Your task to perform on an android device: toggle data saver in the chrome app Image 0: 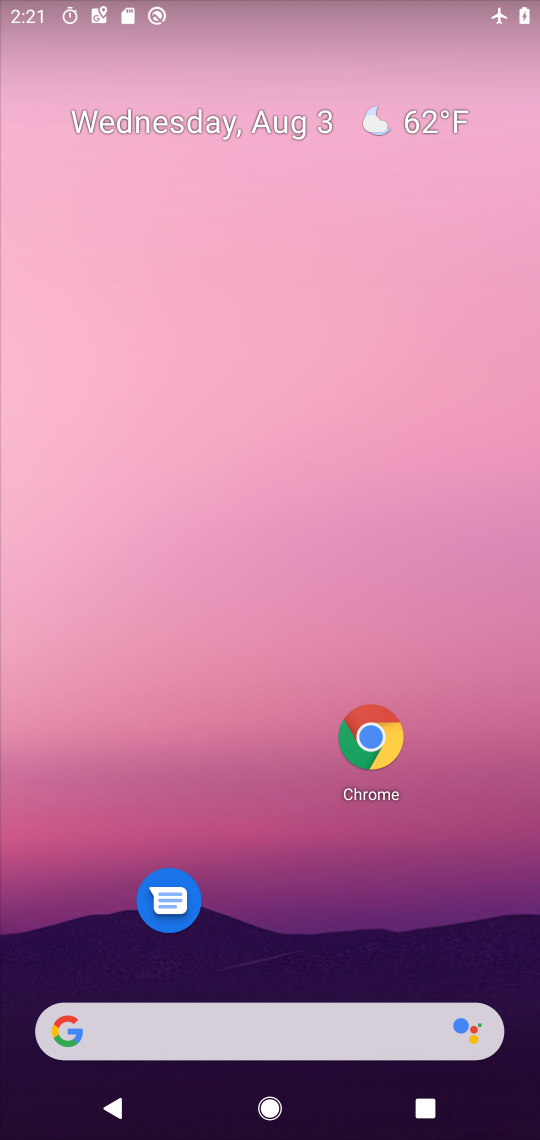
Step 0: press home button
Your task to perform on an android device: toggle data saver in the chrome app Image 1: 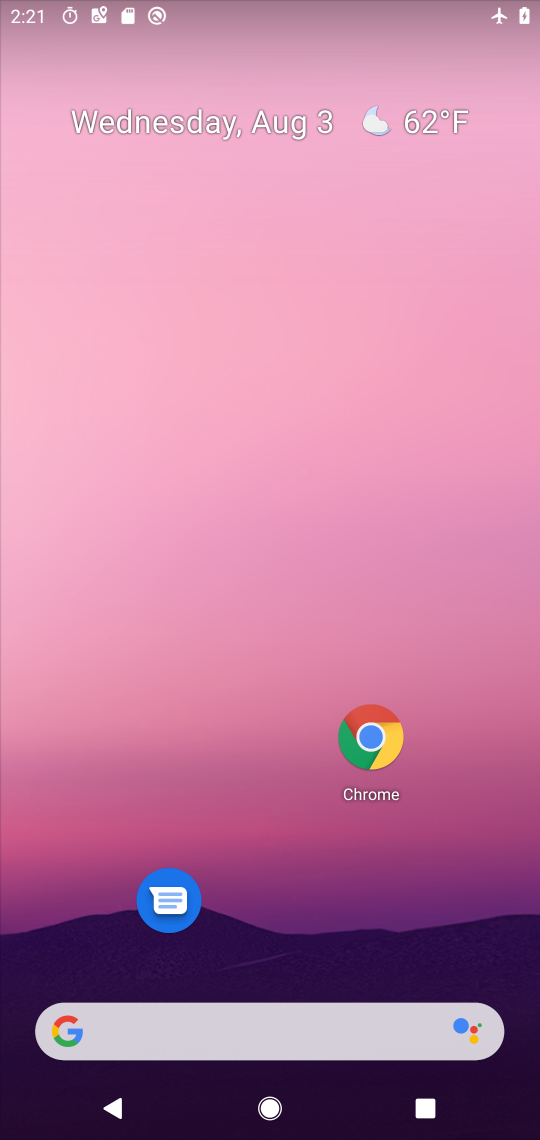
Step 1: drag from (267, 855) to (371, 14)
Your task to perform on an android device: toggle data saver in the chrome app Image 2: 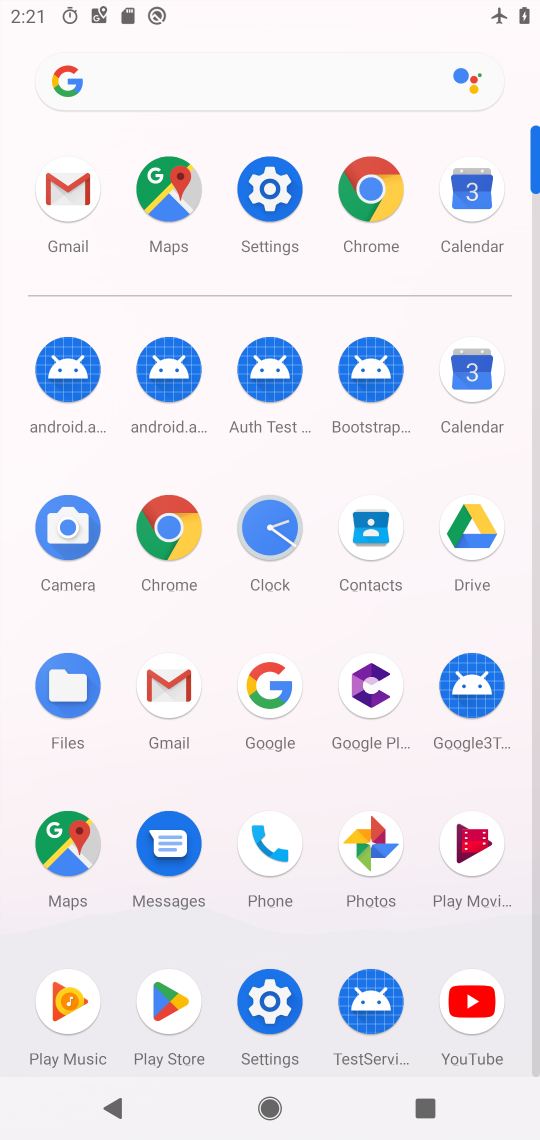
Step 2: click (169, 538)
Your task to perform on an android device: toggle data saver in the chrome app Image 3: 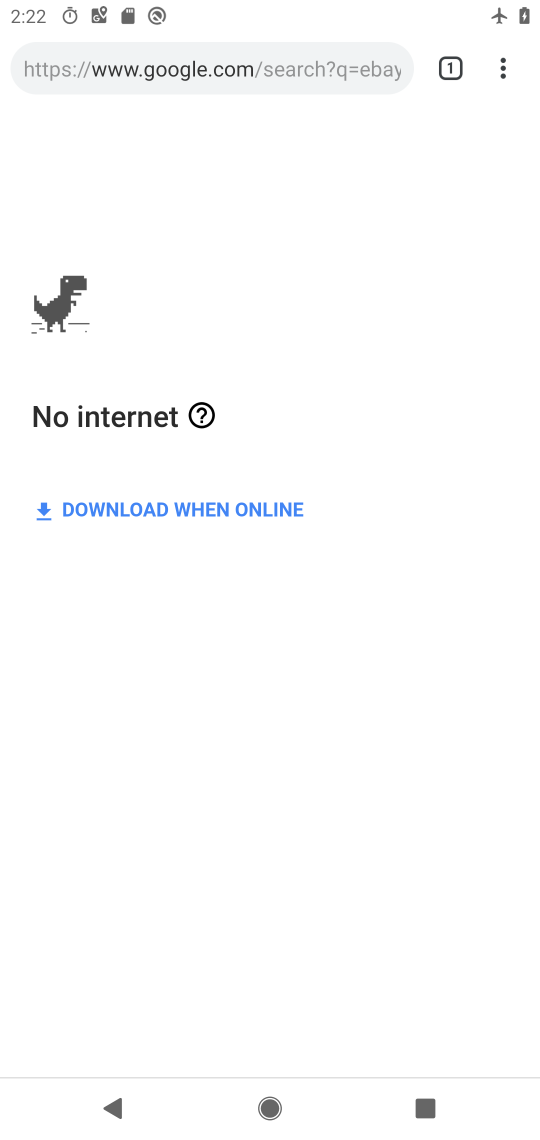
Step 3: drag from (514, 58) to (265, 834)
Your task to perform on an android device: toggle data saver in the chrome app Image 4: 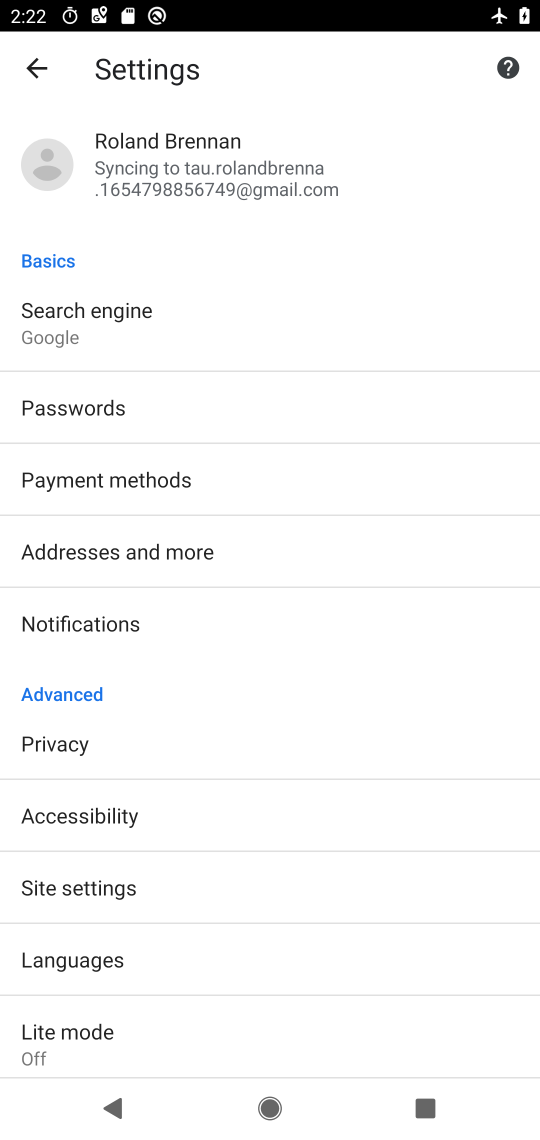
Step 4: click (107, 1036)
Your task to perform on an android device: toggle data saver in the chrome app Image 5: 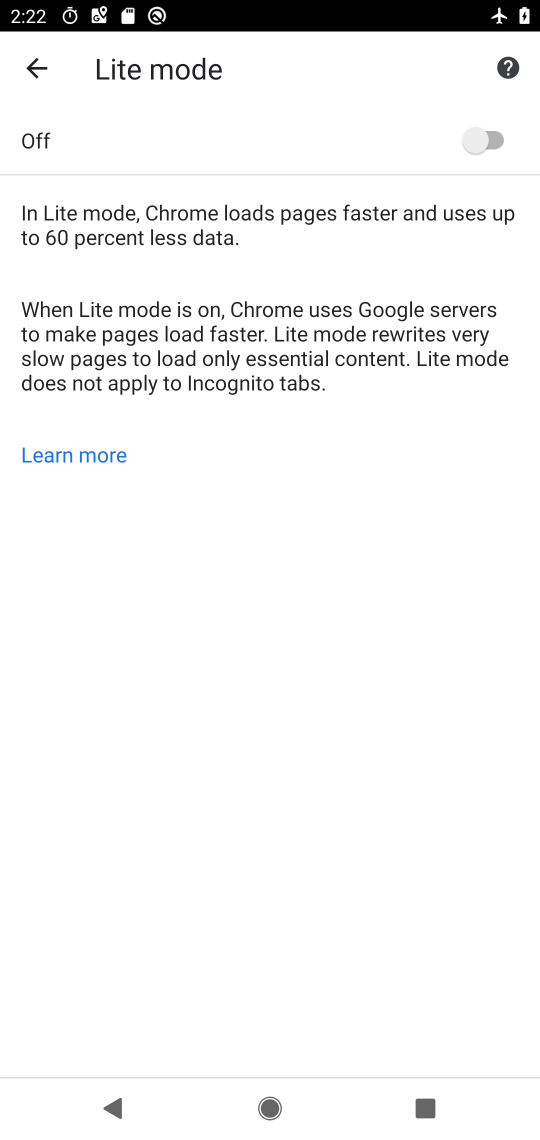
Step 5: click (479, 129)
Your task to perform on an android device: toggle data saver in the chrome app Image 6: 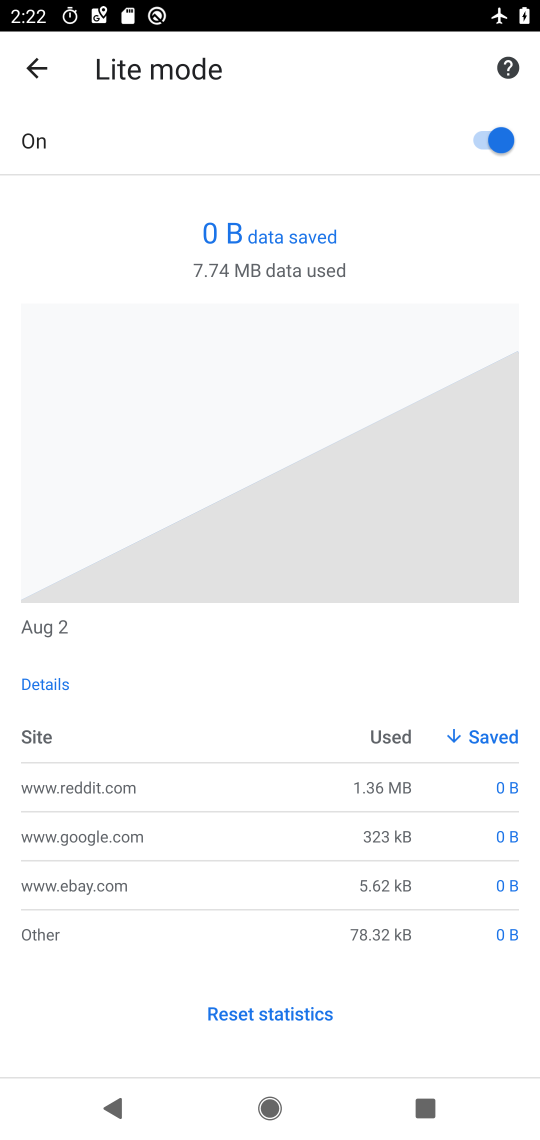
Step 6: task complete